Your task to perform on an android device: Open sound settings Image 0: 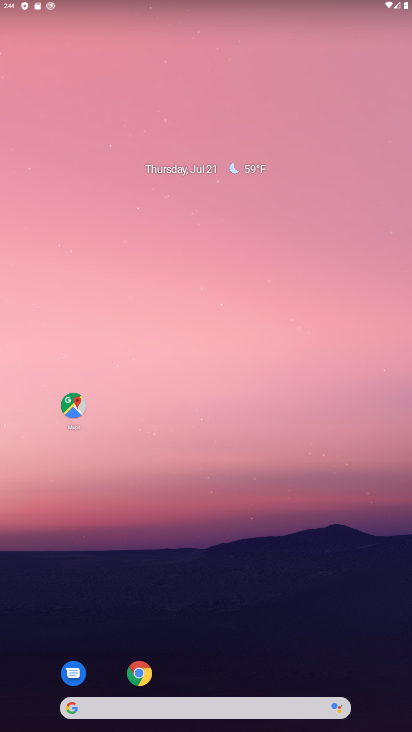
Step 0: drag from (385, 666) to (337, 152)
Your task to perform on an android device: Open sound settings Image 1: 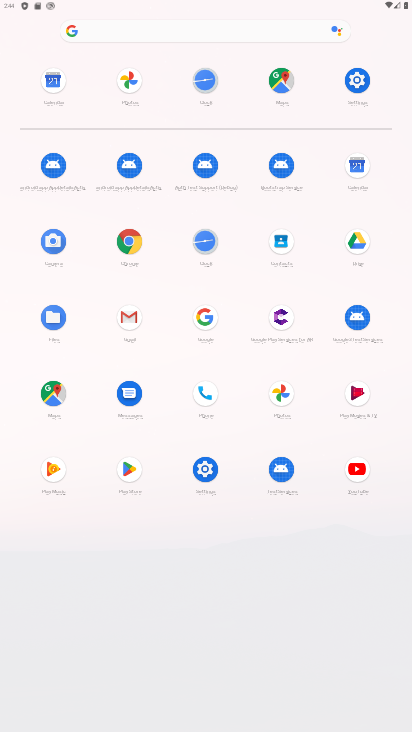
Step 1: click (205, 471)
Your task to perform on an android device: Open sound settings Image 2: 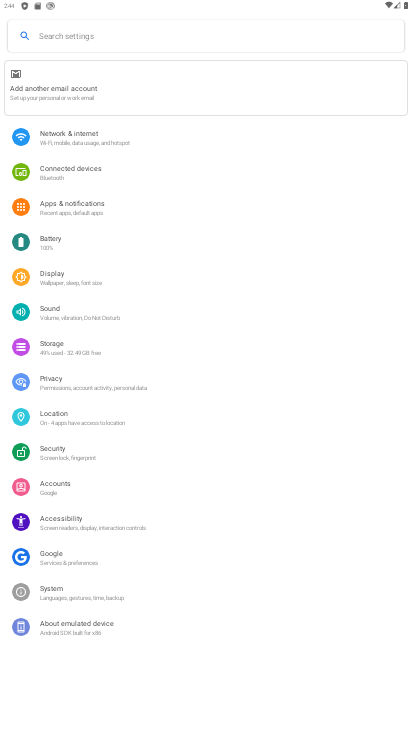
Step 2: click (49, 303)
Your task to perform on an android device: Open sound settings Image 3: 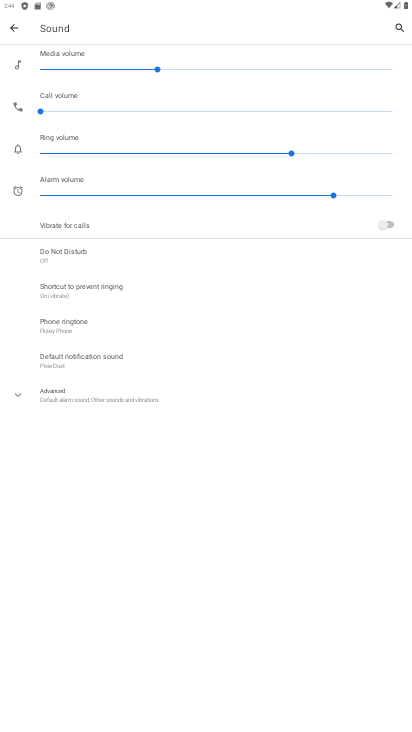
Step 3: click (15, 391)
Your task to perform on an android device: Open sound settings Image 4: 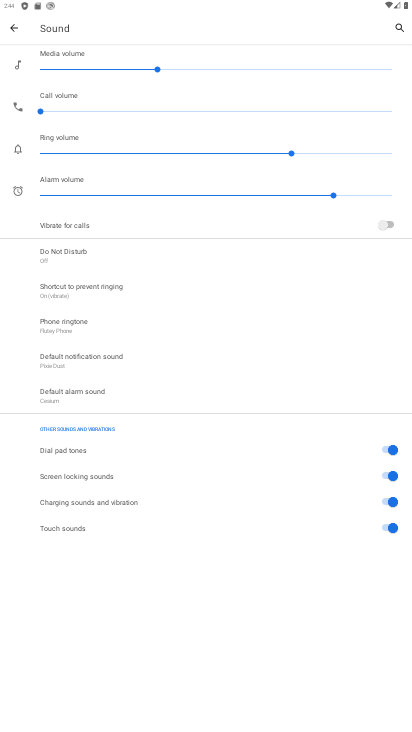
Step 4: task complete